Your task to perform on an android device: Go to privacy settings Image 0: 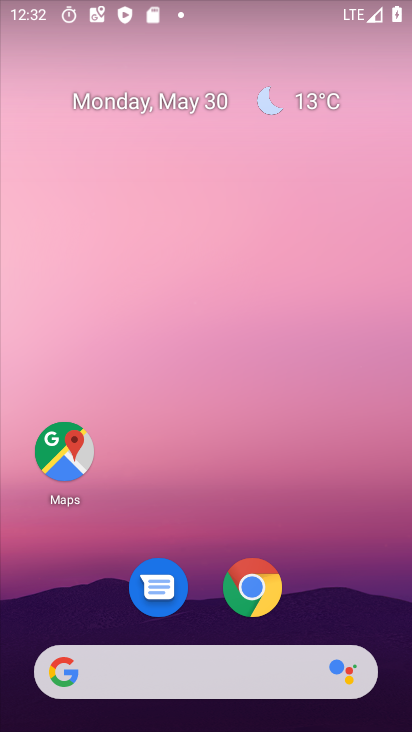
Step 0: drag from (323, 435) to (319, 10)
Your task to perform on an android device: Go to privacy settings Image 1: 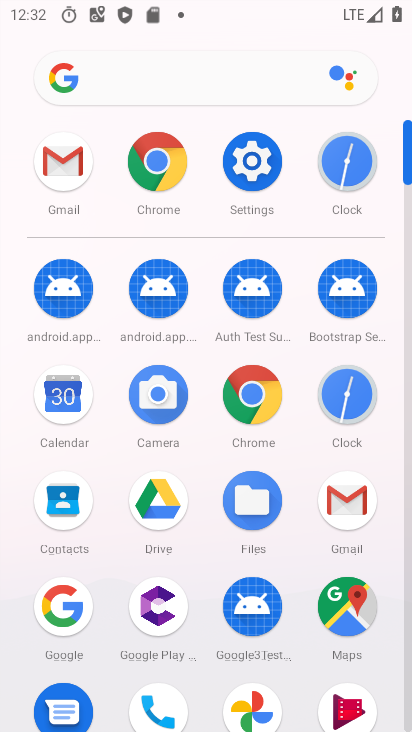
Step 1: click (257, 157)
Your task to perform on an android device: Go to privacy settings Image 2: 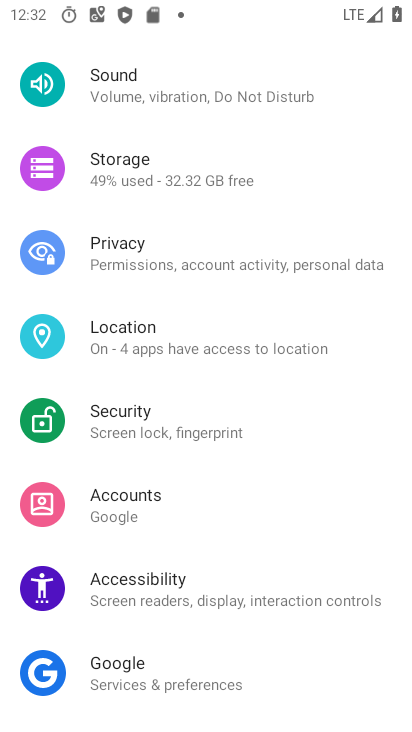
Step 2: click (164, 248)
Your task to perform on an android device: Go to privacy settings Image 3: 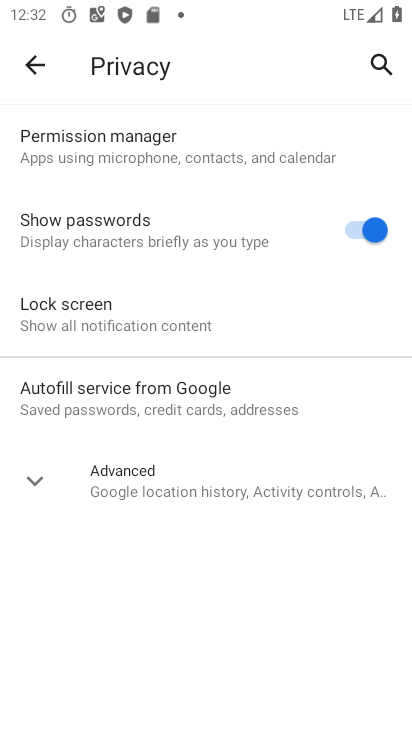
Step 3: task complete